Your task to perform on an android device: Search for vegetarian restaurants on Maps Image 0: 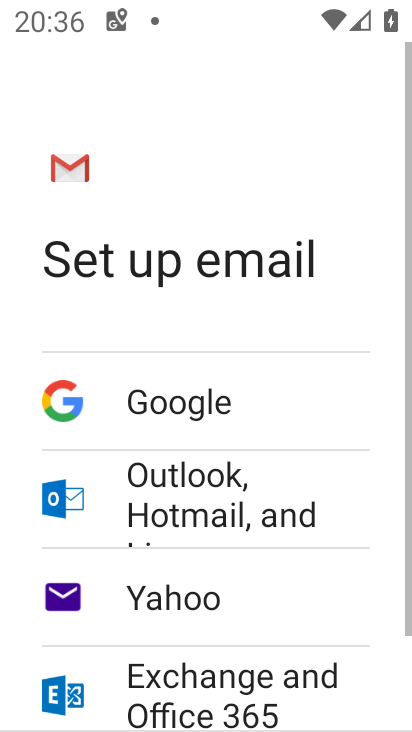
Step 0: press back button
Your task to perform on an android device: Search for vegetarian restaurants on Maps Image 1: 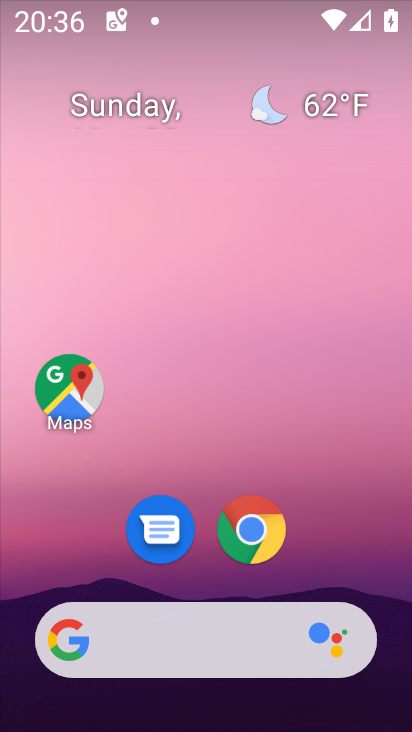
Step 1: click (149, 88)
Your task to perform on an android device: Search for vegetarian restaurants on Maps Image 2: 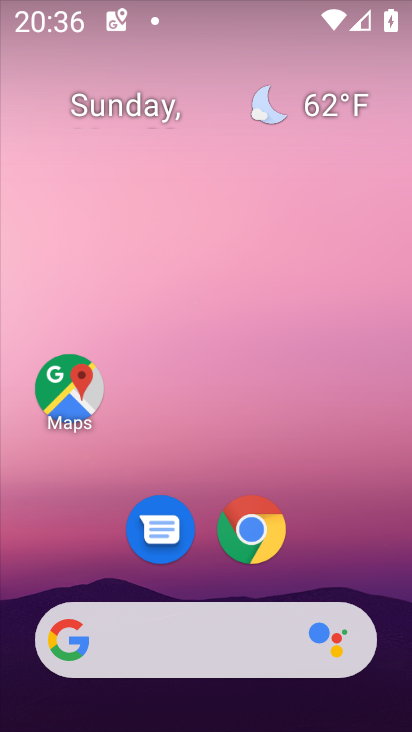
Step 2: drag from (288, 692) to (202, 53)
Your task to perform on an android device: Search for vegetarian restaurants on Maps Image 3: 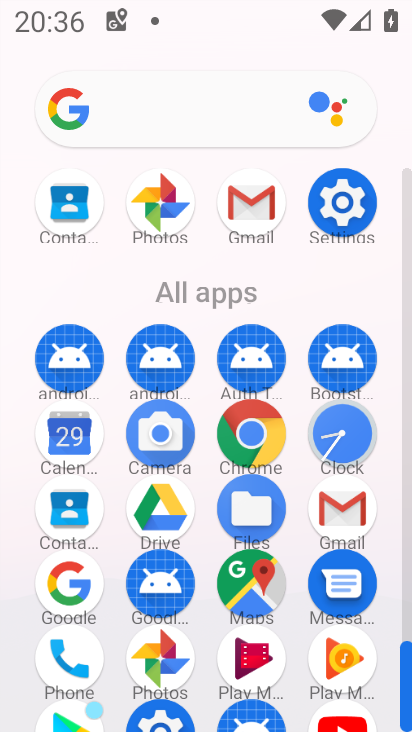
Step 3: drag from (256, 672) to (227, 78)
Your task to perform on an android device: Search for vegetarian restaurants on Maps Image 4: 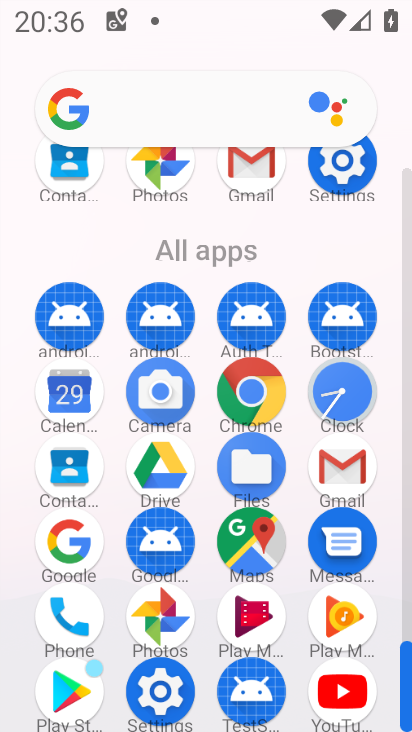
Step 4: click (251, 550)
Your task to perform on an android device: Search for vegetarian restaurants on Maps Image 5: 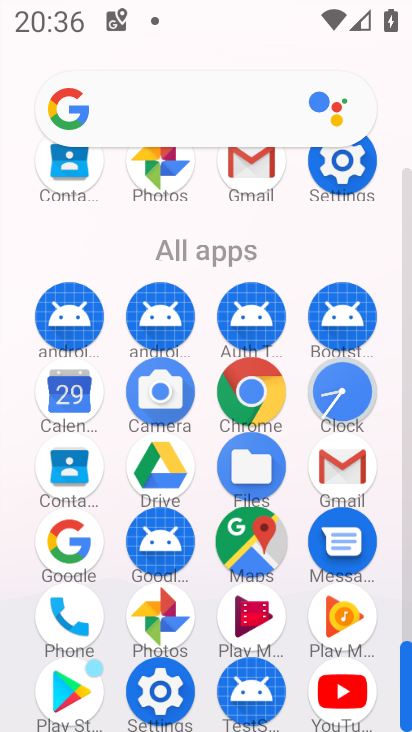
Step 5: click (251, 550)
Your task to perform on an android device: Search for vegetarian restaurants on Maps Image 6: 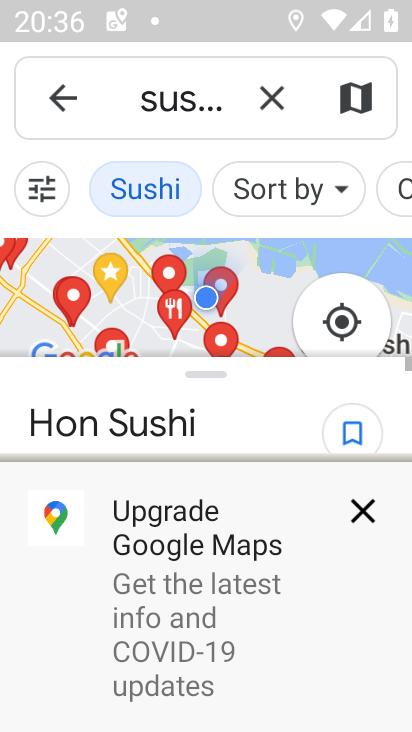
Step 6: click (268, 98)
Your task to perform on an android device: Search for vegetarian restaurants on Maps Image 7: 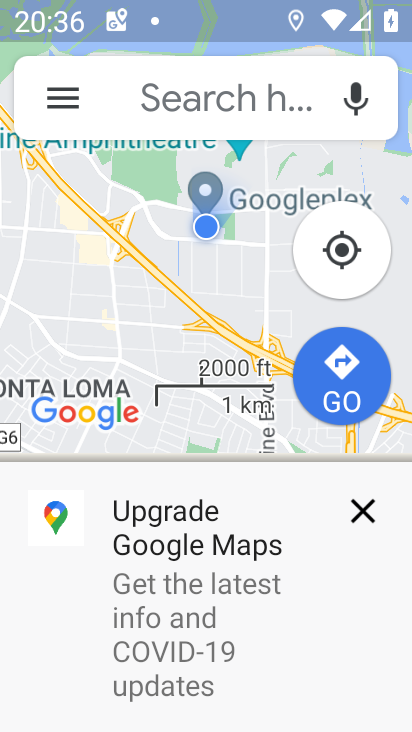
Step 7: click (113, 93)
Your task to perform on an android device: Search for vegetarian restaurants on Maps Image 8: 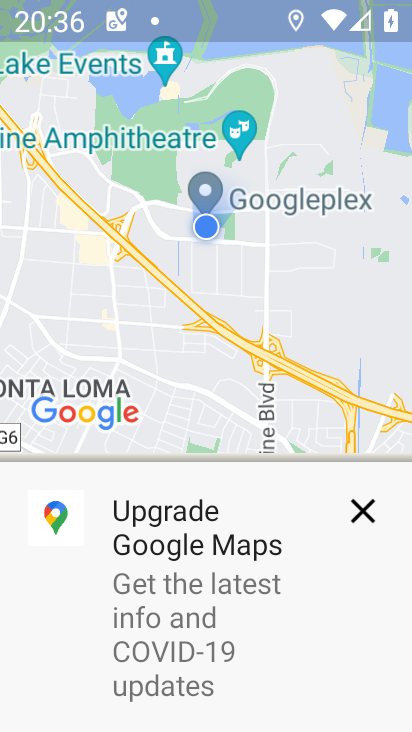
Step 8: drag from (110, 105) to (218, 471)
Your task to perform on an android device: Search for vegetarian restaurants on Maps Image 9: 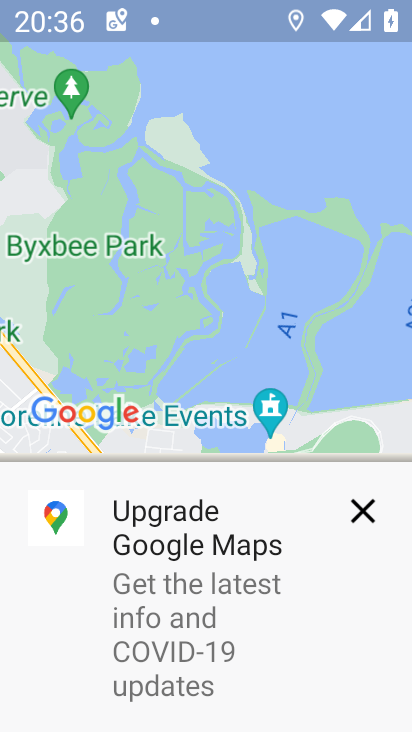
Step 9: click (239, 465)
Your task to perform on an android device: Search for vegetarian restaurants on Maps Image 10: 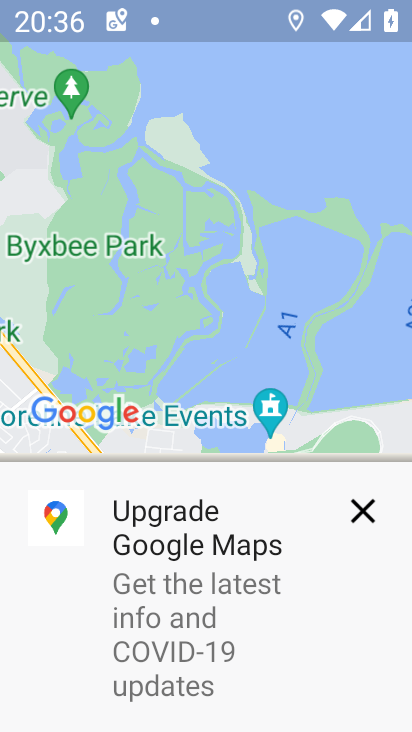
Step 10: drag from (192, 204) to (192, 500)
Your task to perform on an android device: Search for vegetarian restaurants on Maps Image 11: 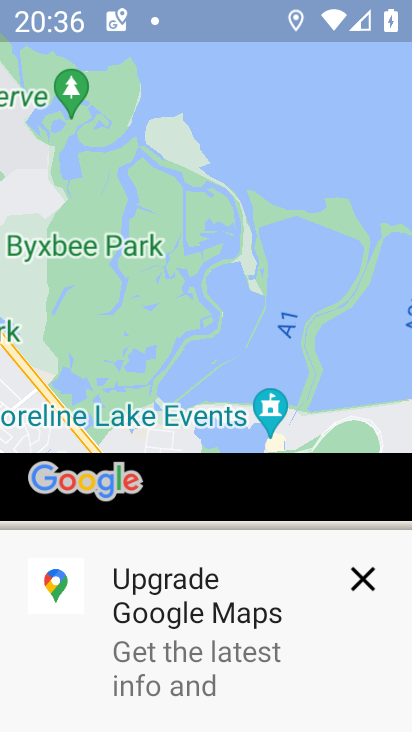
Step 11: drag from (137, 148) to (137, 501)
Your task to perform on an android device: Search for vegetarian restaurants on Maps Image 12: 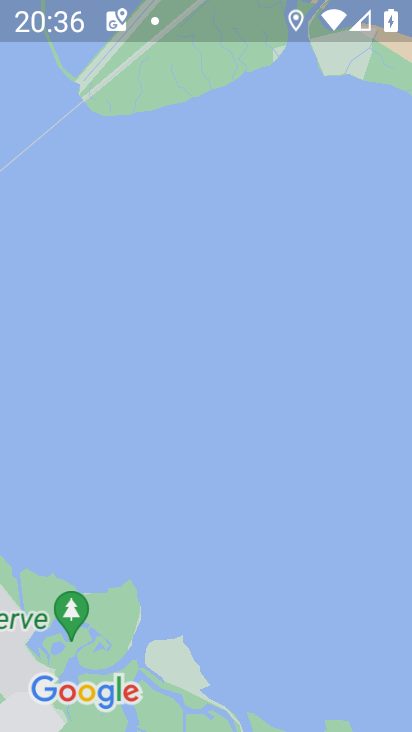
Step 12: drag from (69, 137) to (85, 401)
Your task to perform on an android device: Search for vegetarian restaurants on Maps Image 13: 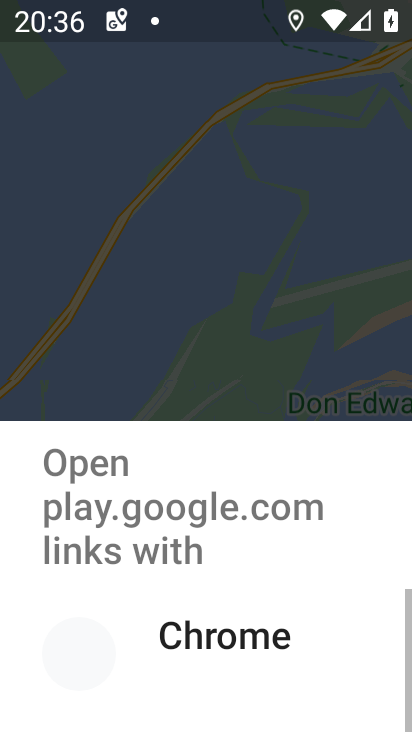
Step 13: drag from (88, 226) to (155, 599)
Your task to perform on an android device: Search for vegetarian restaurants on Maps Image 14: 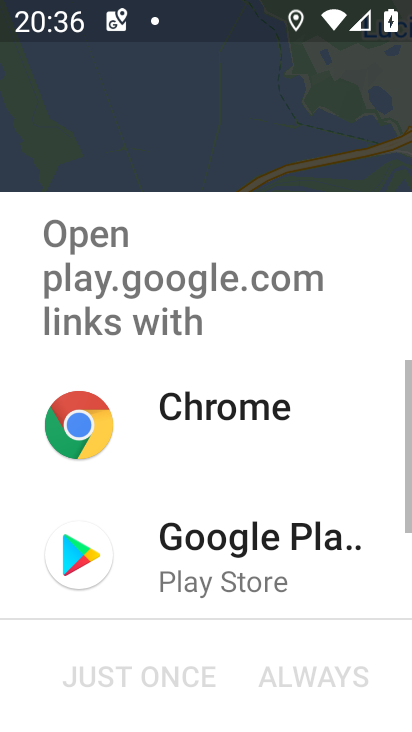
Step 14: click (160, 407)
Your task to perform on an android device: Search for vegetarian restaurants on Maps Image 15: 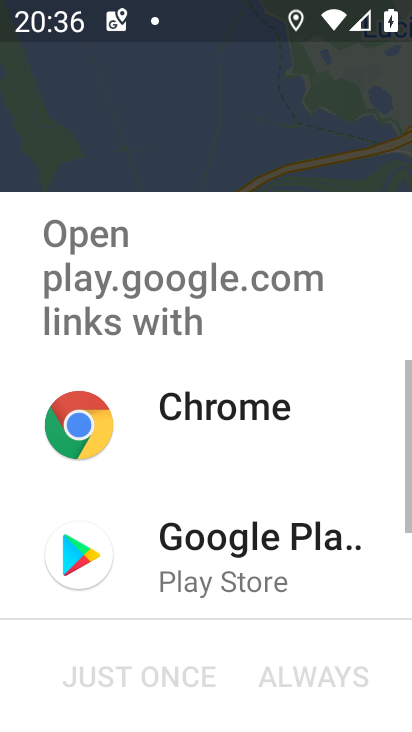
Step 15: drag from (170, 226) to (194, 386)
Your task to perform on an android device: Search for vegetarian restaurants on Maps Image 16: 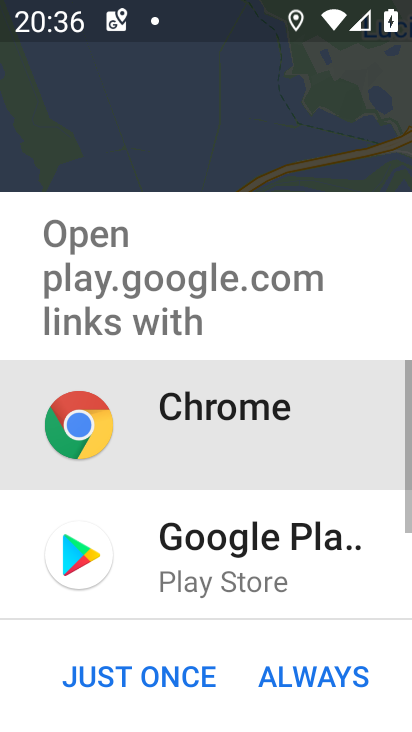
Step 16: press back button
Your task to perform on an android device: Search for vegetarian restaurants on Maps Image 17: 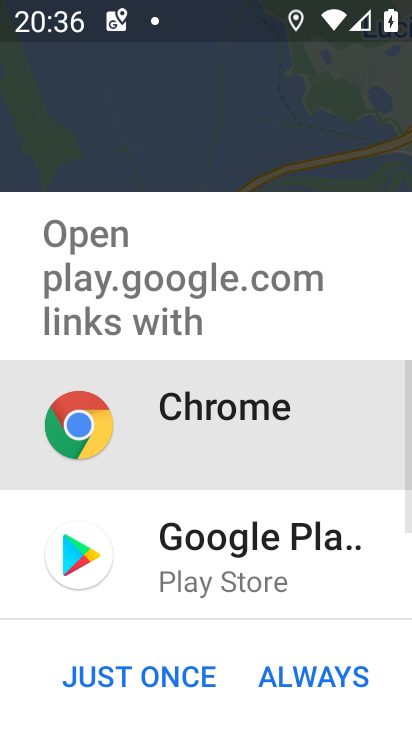
Step 17: press back button
Your task to perform on an android device: Search for vegetarian restaurants on Maps Image 18: 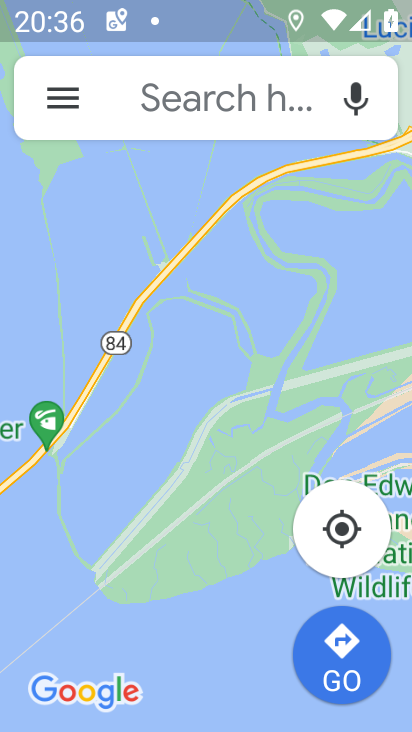
Step 18: click (148, 95)
Your task to perform on an android device: Search for vegetarian restaurants on Maps Image 19: 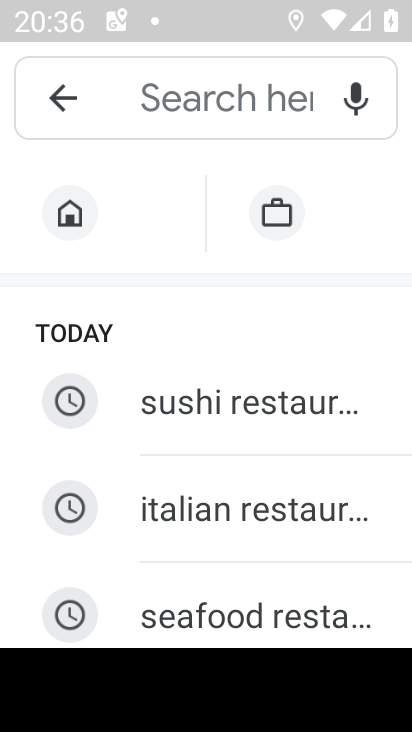
Step 19: drag from (255, 566) to (262, 226)
Your task to perform on an android device: Search for vegetarian restaurants on Maps Image 20: 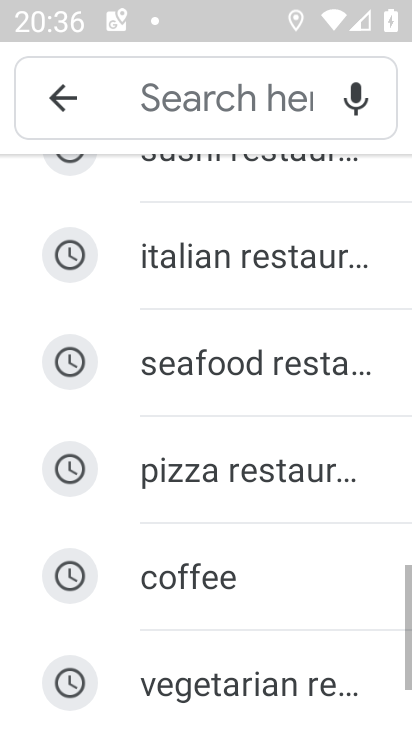
Step 20: drag from (245, 500) to (235, 286)
Your task to perform on an android device: Search for vegetarian restaurants on Maps Image 21: 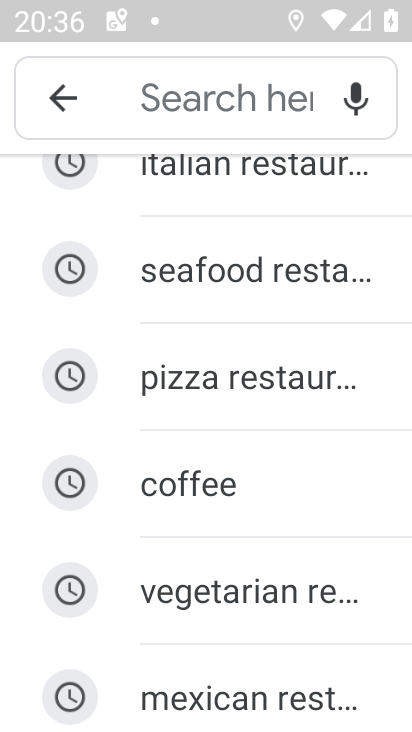
Step 21: click (210, 596)
Your task to perform on an android device: Search for vegetarian restaurants on Maps Image 22: 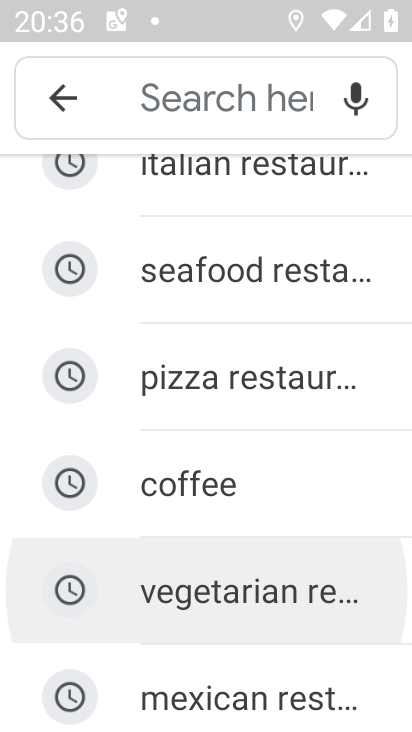
Step 22: click (210, 596)
Your task to perform on an android device: Search for vegetarian restaurants on Maps Image 23: 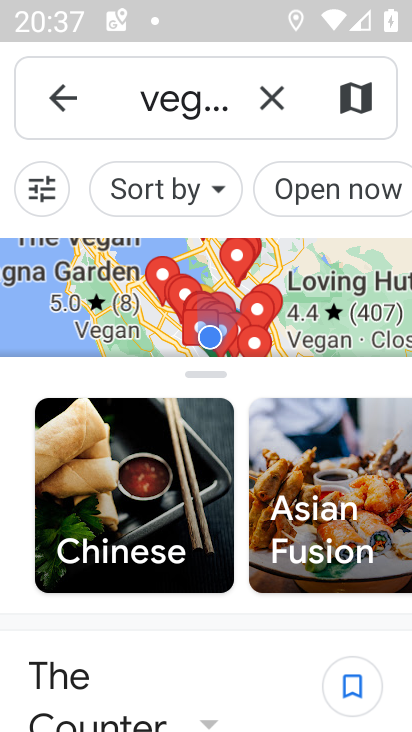
Step 23: task complete